Your task to perform on an android device: What's the weather going to be tomorrow? Image 0: 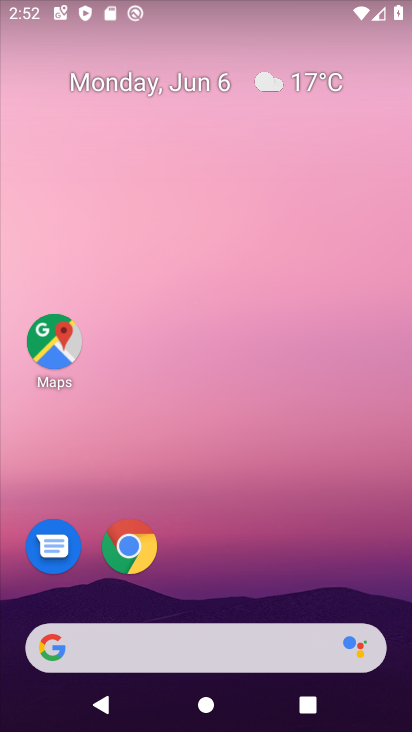
Step 0: drag from (238, 605) to (250, 4)
Your task to perform on an android device: What's the weather going to be tomorrow? Image 1: 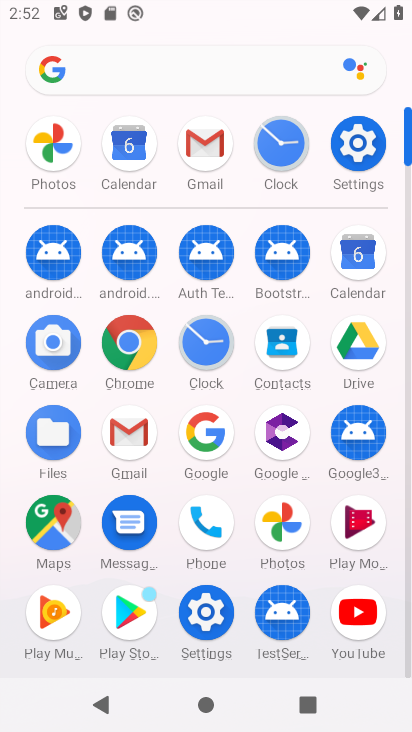
Step 1: click (363, 166)
Your task to perform on an android device: What's the weather going to be tomorrow? Image 2: 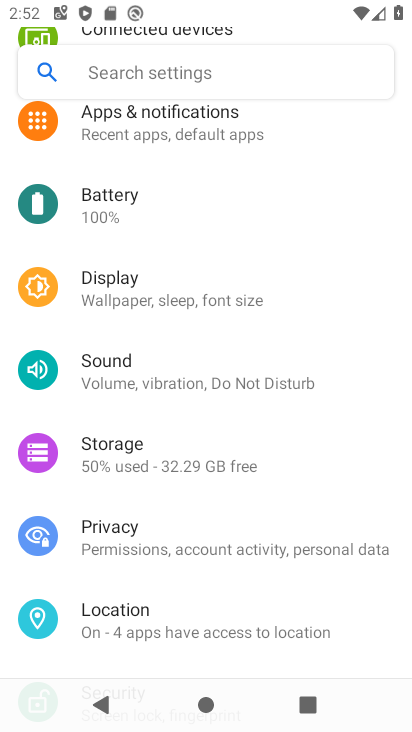
Step 2: press home button
Your task to perform on an android device: What's the weather going to be tomorrow? Image 3: 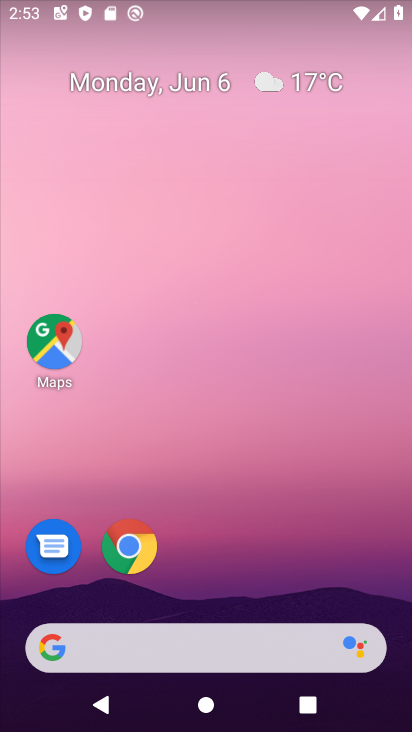
Step 3: click (201, 635)
Your task to perform on an android device: What's the weather going to be tomorrow? Image 4: 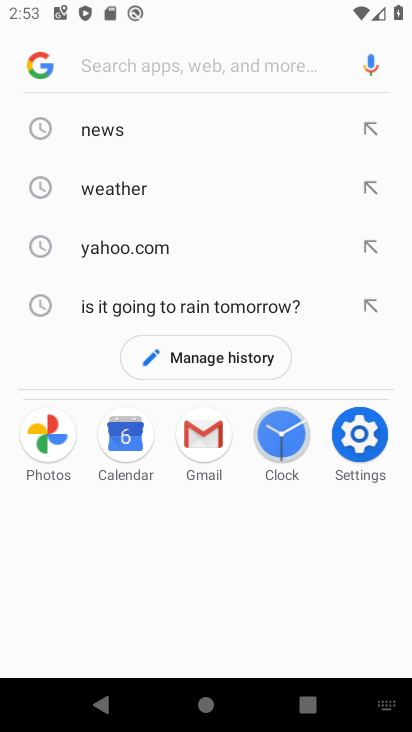
Step 4: click (187, 186)
Your task to perform on an android device: What's the weather going to be tomorrow? Image 5: 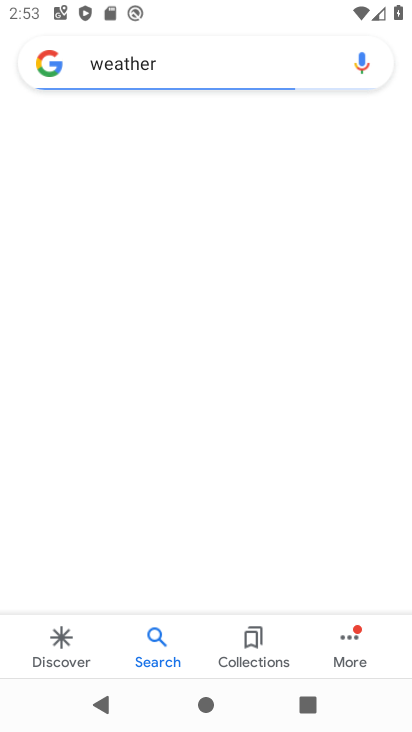
Step 5: task complete